Your task to perform on an android device: toggle wifi Image 0: 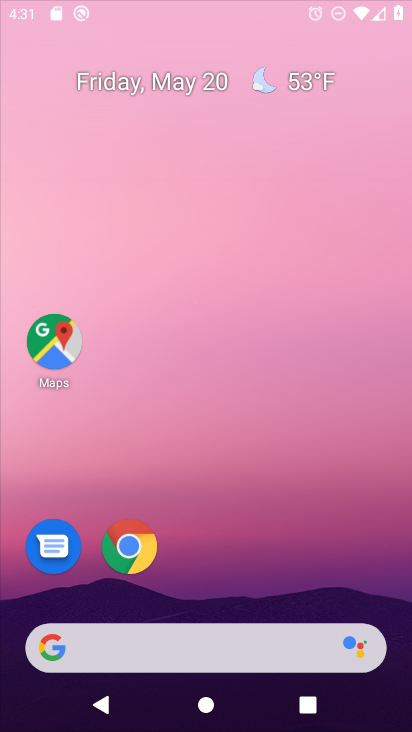
Step 0: drag from (277, 510) to (212, 94)
Your task to perform on an android device: toggle wifi Image 1: 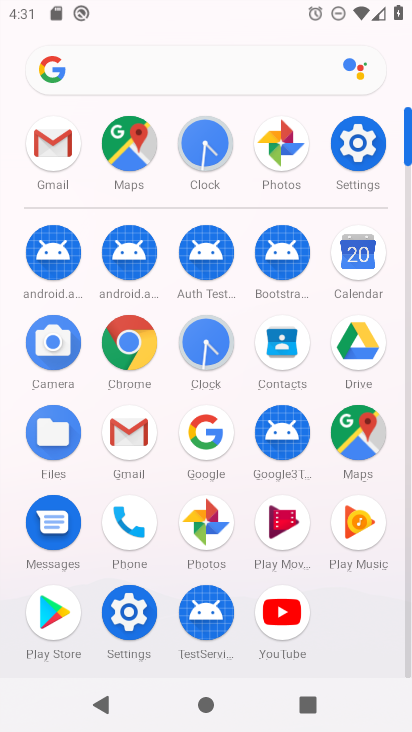
Step 1: click (378, 157)
Your task to perform on an android device: toggle wifi Image 2: 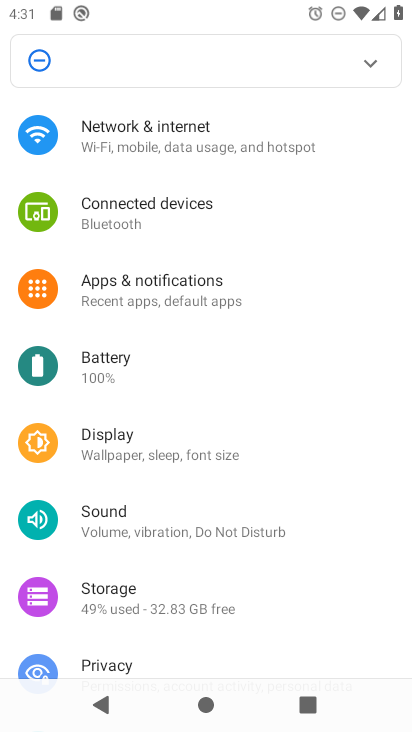
Step 2: drag from (159, 131) to (210, 638)
Your task to perform on an android device: toggle wifi Image 3: 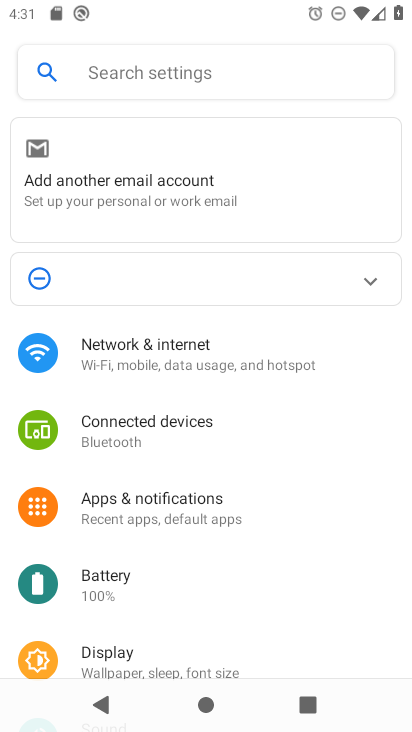
Step 3: click (177, 346)
Your task to perform on an android device: toggle wifi Image 4: 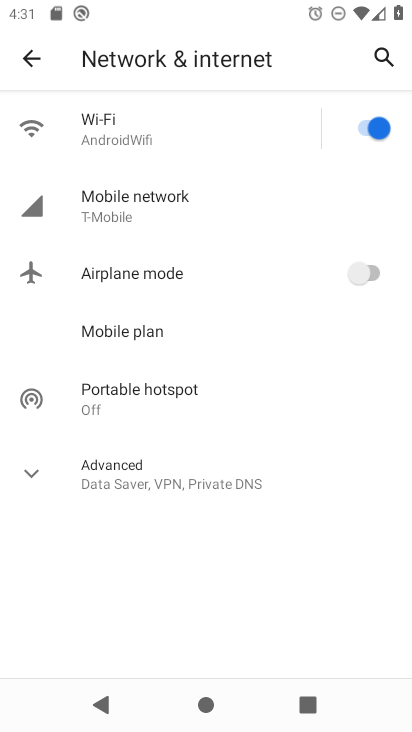
Step 4: click (380, 123)
Your task to perform on an android device: toggle wifi Image 5: 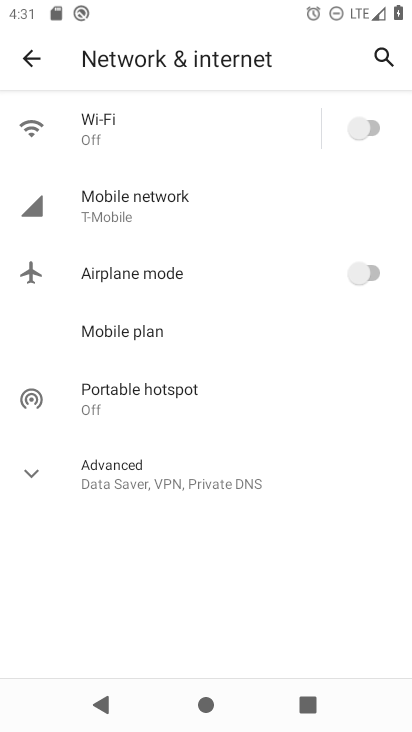
Step 5: task complete